Your task to perform on an android device: delete a single message in the gmail app Image 0: 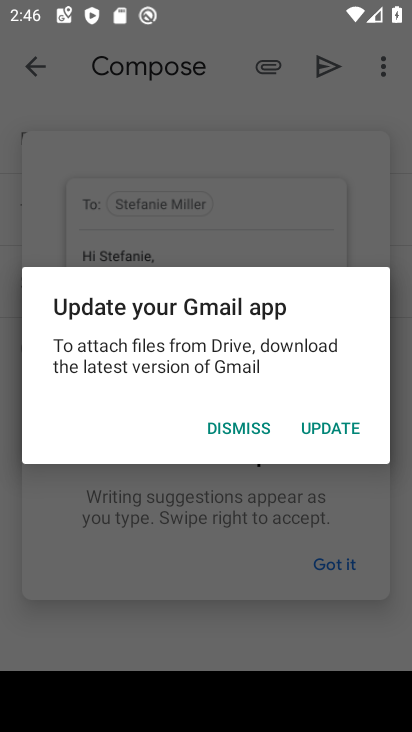
Step 0: press home button
Your task to perform on an android device: delete a single message in the gmail app Image 1: 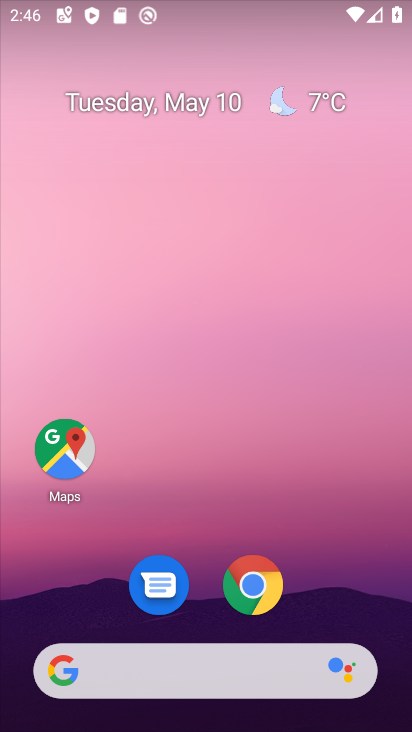
Step 1: drag from (77, 553) to (136, 12)
Your task to perform on an android device: delete a single message in the gmail app Image 2: 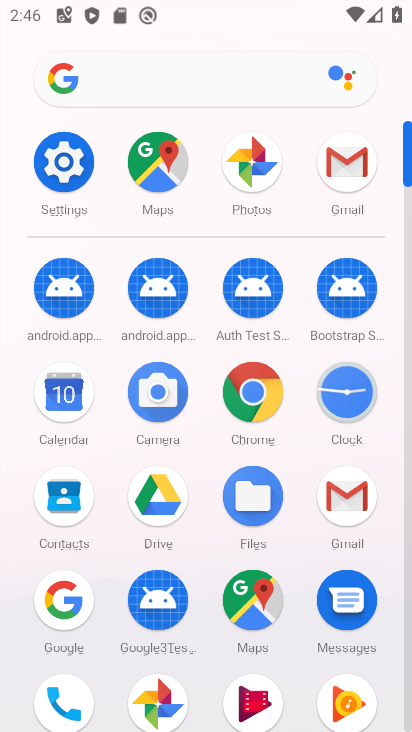
Step 2: click (347, 162)
Your task to perform on an android device: delete a single message in the gmail app Image 3: 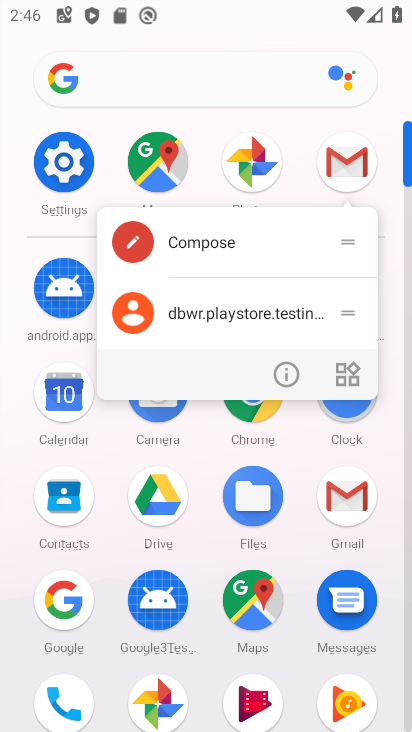
Step 3: click (335, 155)
Your task to perform on an android device: delete a single message in the gmail app Image 4: 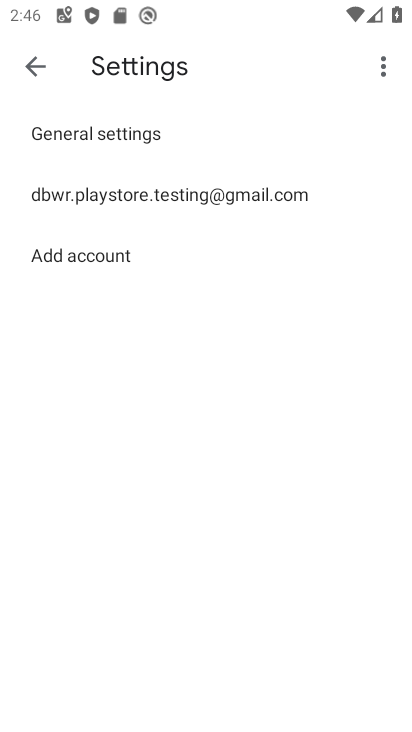
Step 4: click (28, 58)
Your task to perform on an android device: delete a single message in the gmail app Image 5: 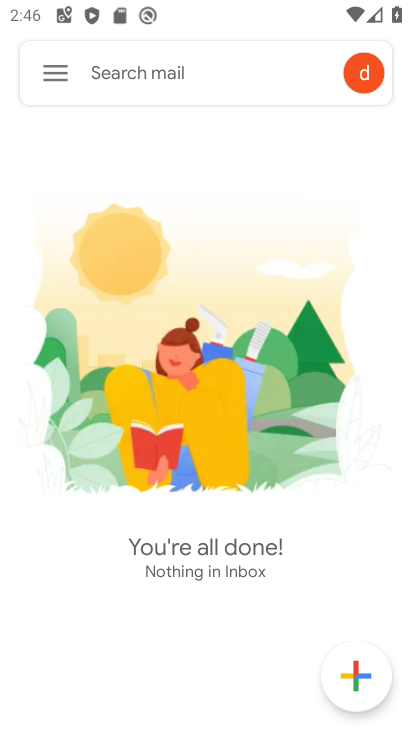
Step 5: click (47, 67)
Your task to perform on an android device: delete a single message in the gmail app Image 6: 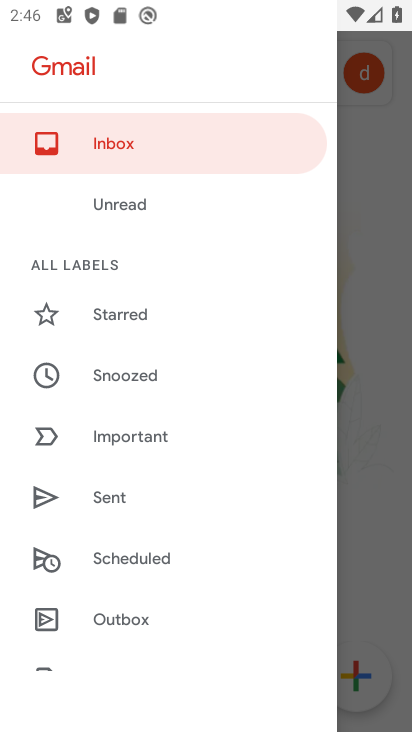
Step 6: drag from (187, 540) to (189, 148)
Your task to perform on an android device: delete a single message in the gmail app Image 7: 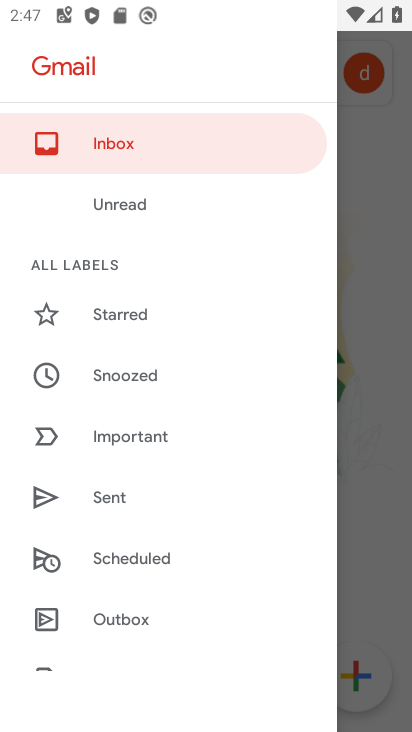
Step 7: drag from (154, 581) to (172, 222)
Your task to perform on an android device: delete a single message in the gmail app Image 8: 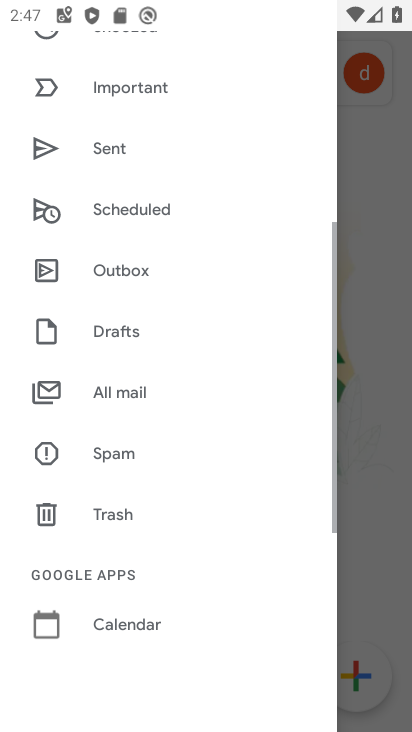
Step 8: click (135, 385)
Your task to perform on an android device: delete a single message in the gmail app Image 9: 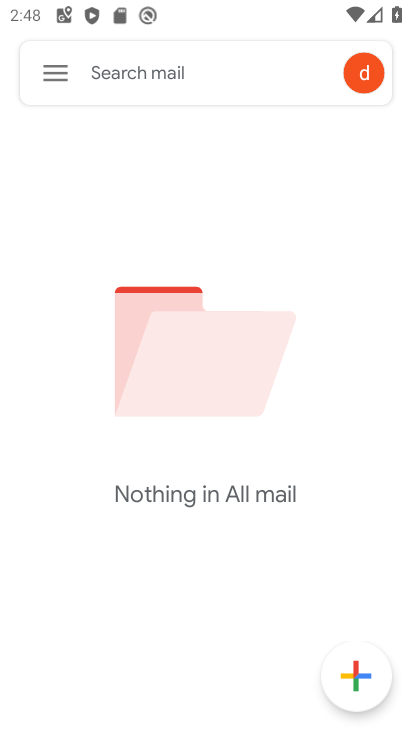
Step 9: task complete